Your task to perform on an android device: change text size in settings app Image 0: 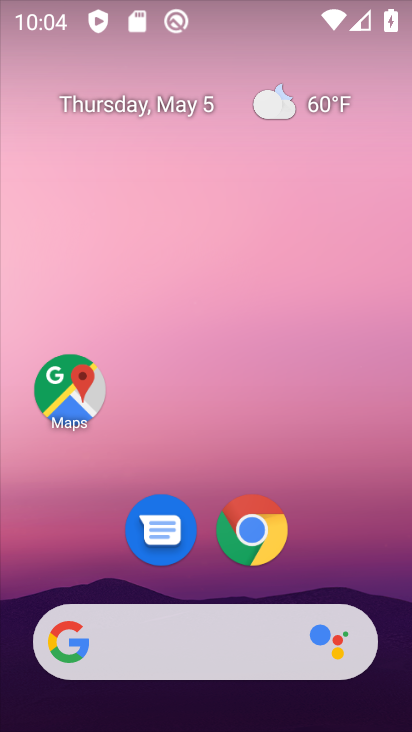
Step 0: drag from (381, 610) to (256, 164)
Your task to perform on an android device: change text size in settings app Image 1: 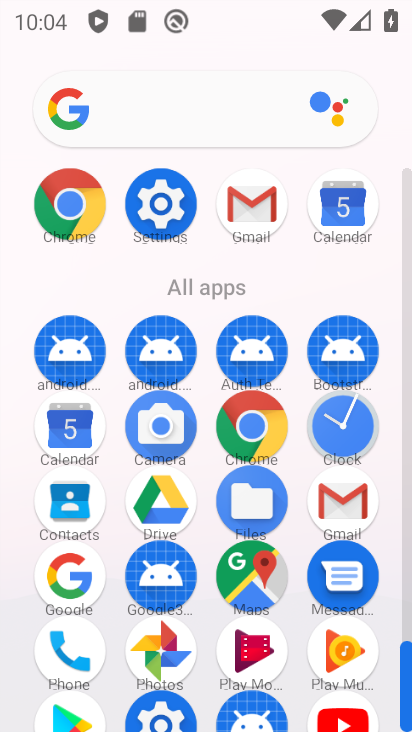
Step 1: click (163, 194)
Your task to perform on an android device: change text size in settings app Image 2: 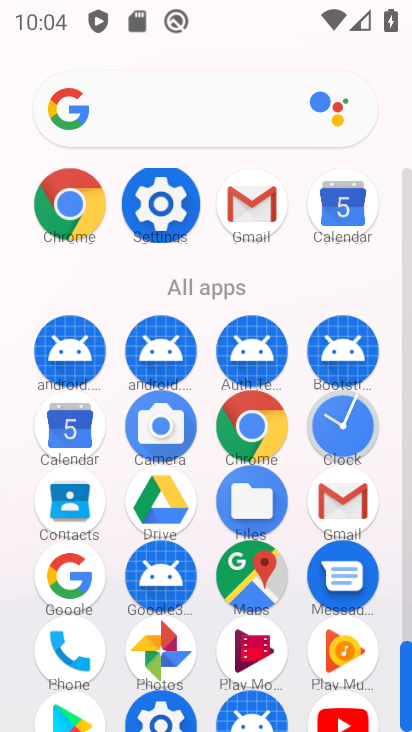
Step 2: click (163, 194)
Your task to perform on an android device: change text size in settings app Image 3: 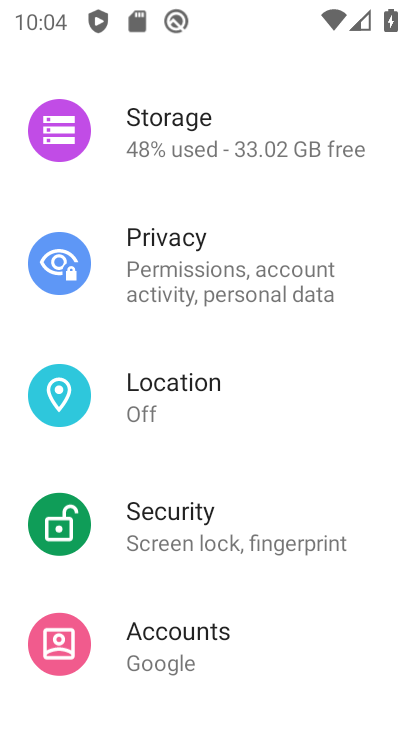
Step 3: click (164, 197)
Your task to perform on an android device: change text size in settings app Image 4: 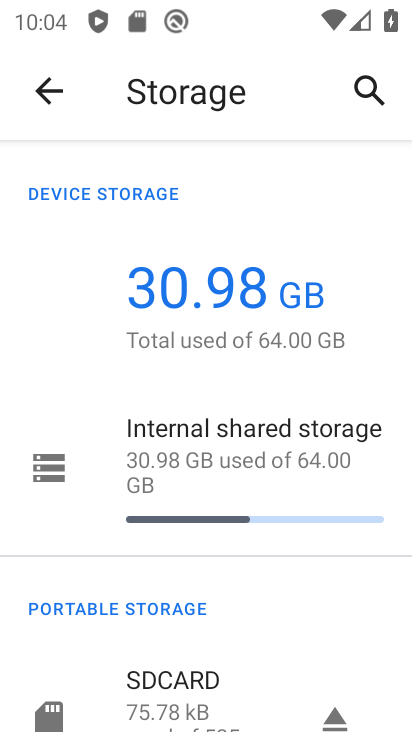
Step 4: click (46, 91)
Your task to perform on an android device: change text size in settings app Image 5: 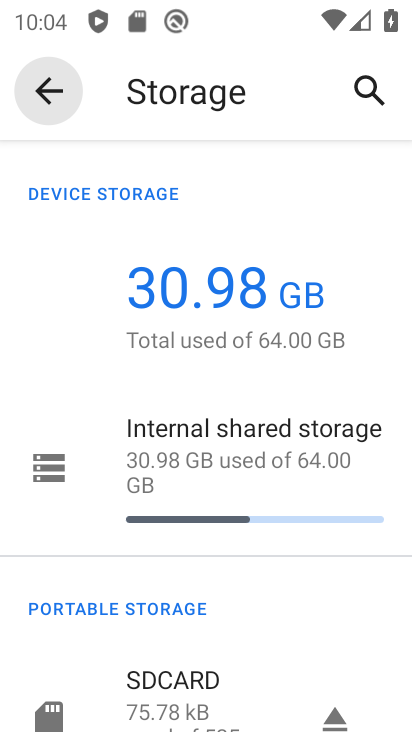
Step 5: click (51, 88)
Your task to perform on an android device: change text size in settings app Image 6: 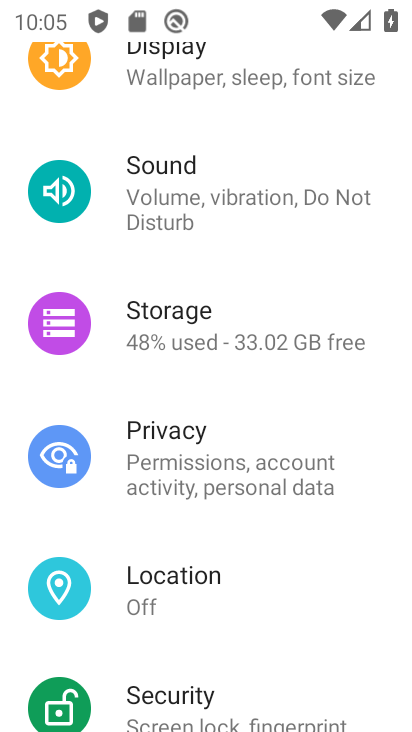
Step 6: click (158, 53)
Your task to perform on an android device: change text size in settings app Image 7: 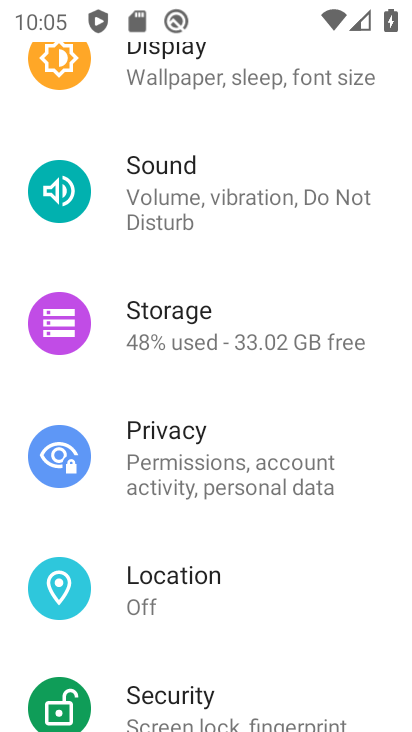
Step 7: click (170, 82)
Your task to perform on an android device: change text size in settings app Image 8: 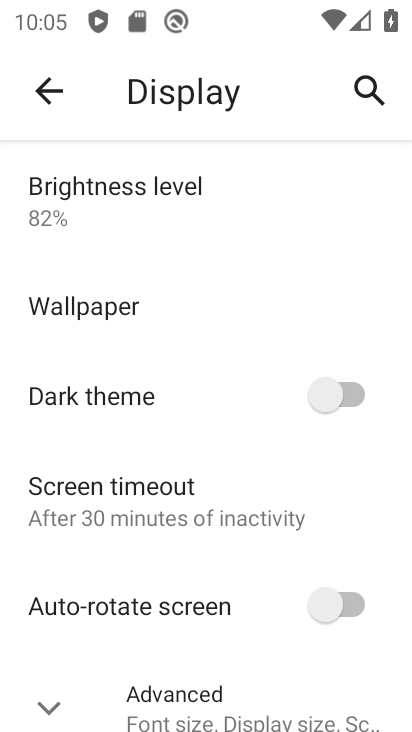
Step 8: drag from (203, 581) to (157, 210)
Your task to perform on an android device: change text size in settings app Image 9: 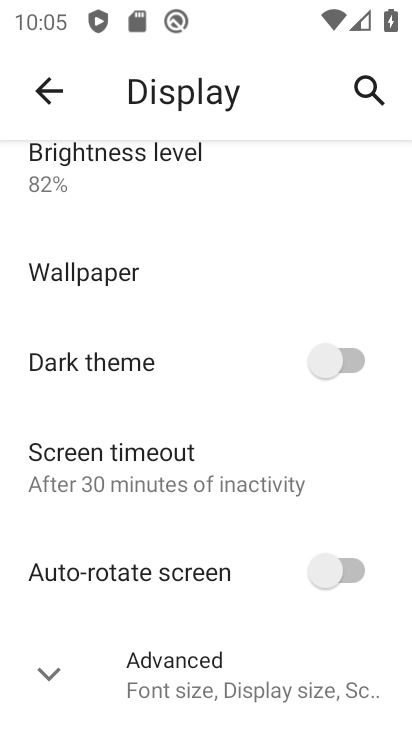
Step 9: click (211, 670)
Your task to perform on an android device: change text size in settings app Image 10: 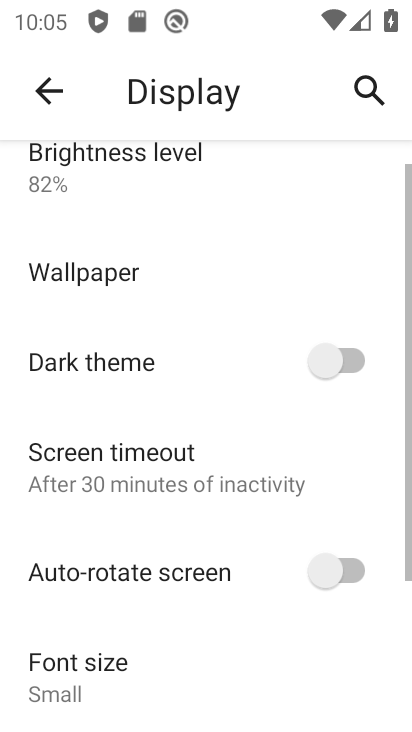
Step 10: drag from (214, 666) to (254, 250)
Your task to perform on an android device: change text size in settings app Image 11: 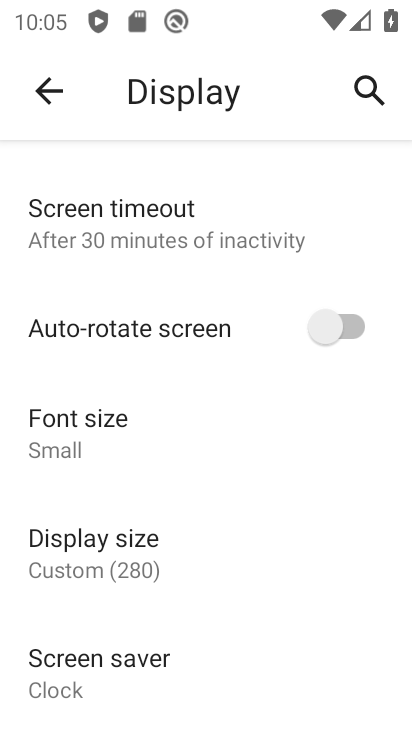
Step 11: click (66, 440)
Your task to perform on an android device: change text size in settings app Image 12: 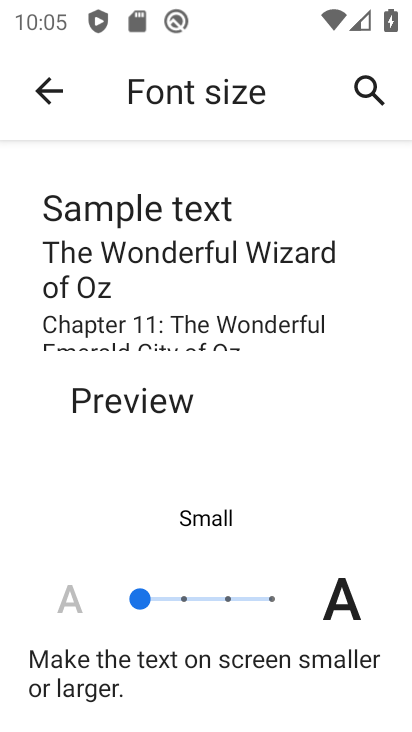
Step 12: click (182, 604)
Your task to perform on an android device: change text size in settings app Image 13: 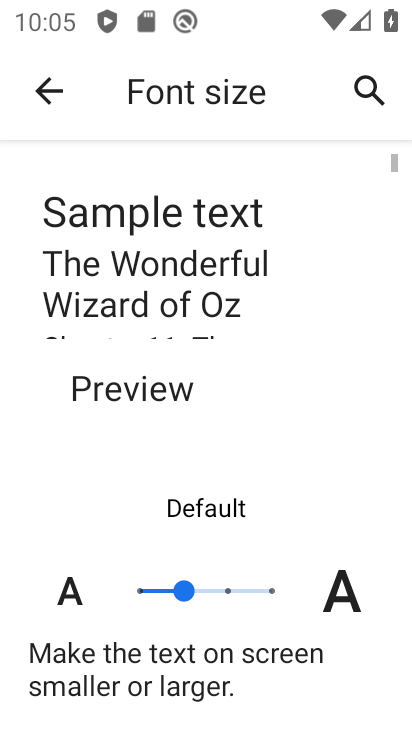
Step 13: task complete